Your task to perform on an android device: toggle data saver in the chrome app Image 0: 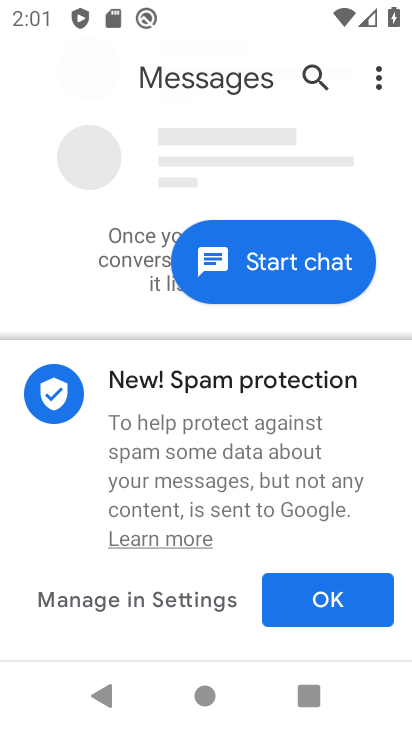
Step 0: press home button
Your task to perform on an android device: toggle data saver in the chrome app Image 1: 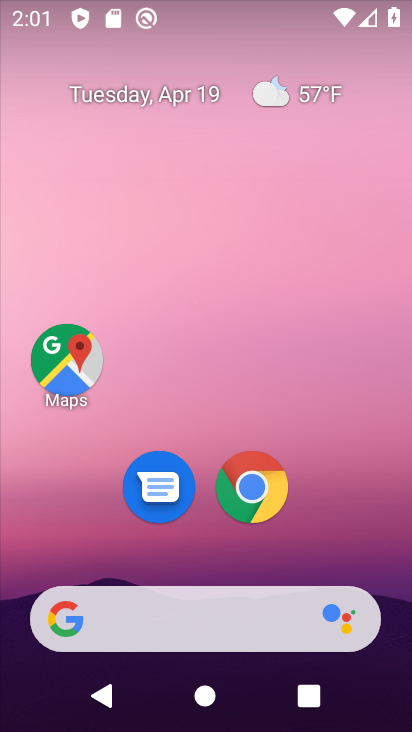
Step 1: click (252, 481)
Your task to perform on an android device: toggle data saver in the chrome app Image 2: 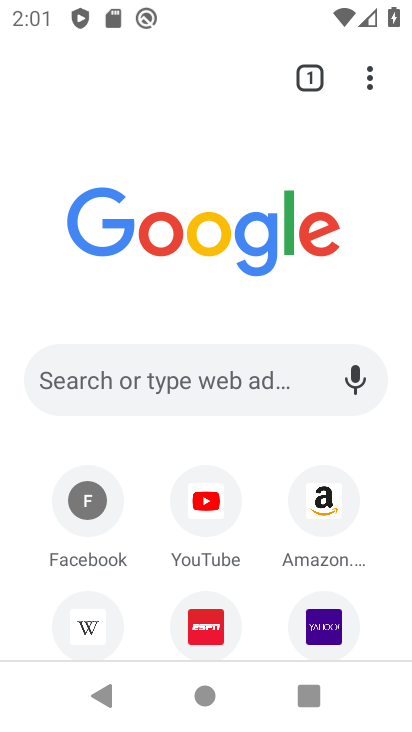
Step 2: click (376, 69)
Your task to perform on an android device: toggle data saver in the chrome app Image 3: 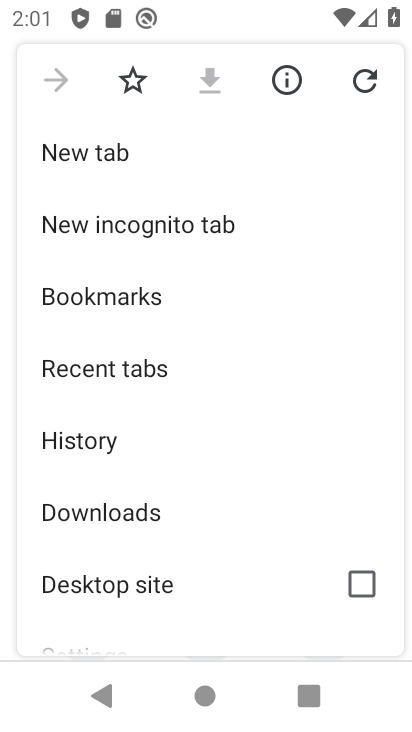
Step 3: drag from (115, 601) to (181, 29)
Your task to perform on an android device: toggle data saver in the chrome app Image 4: 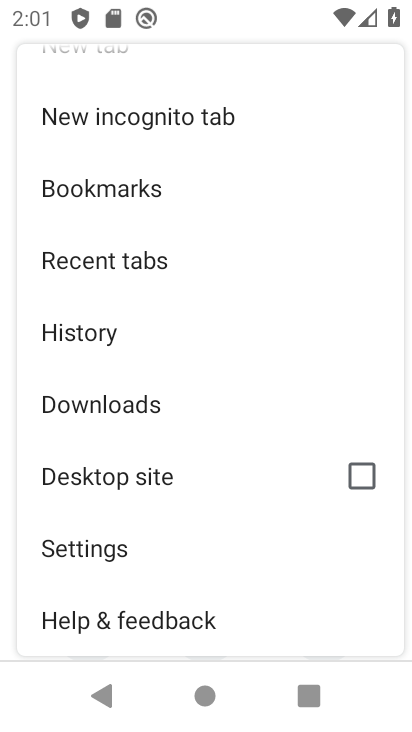
Step 4: click (95, 555)
Your task to perform on an android device: toggle data saver in the chrome app Image 5: 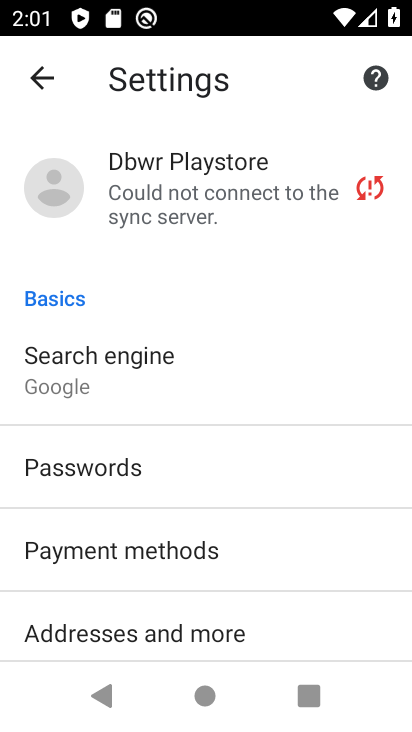
Step 5: drag from (164, 611) to (176, 148)
Your task to perform on an android device: toggle data saver in the chrome app Image 6: 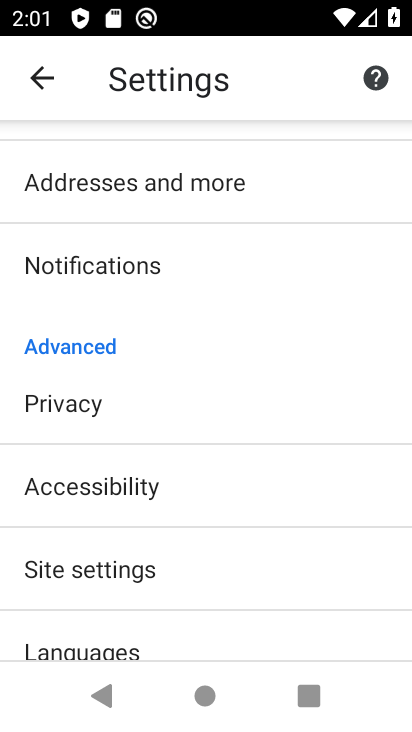
Step 6: click (141, 576)
Your task to perform on an android device: toggle data saver in the chrome app Image 7: 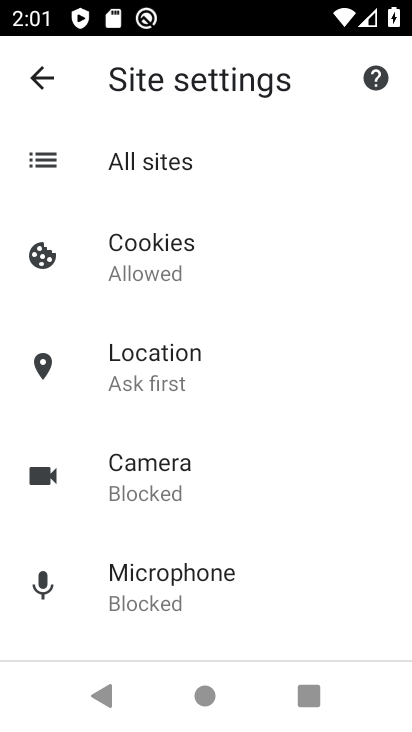
Step 7: click (53, 75)
Your task to perform on an android device: toggle data saver in the chrome app Image 8: 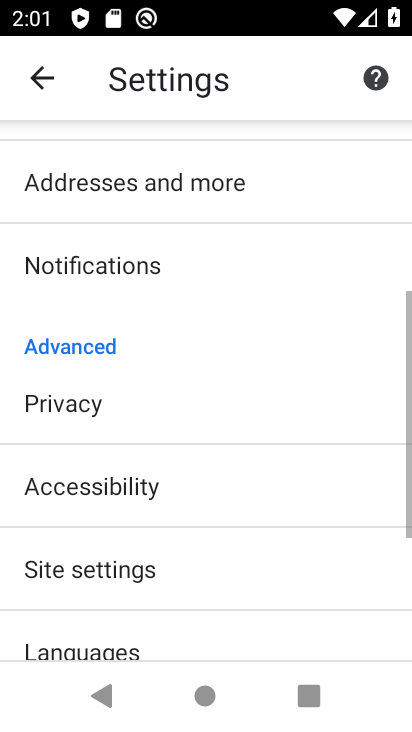
Step 8: drag from (144, 634) to (160, 115)
Your task to perform on an android device: toggle data saver in the chrome app Image 9: 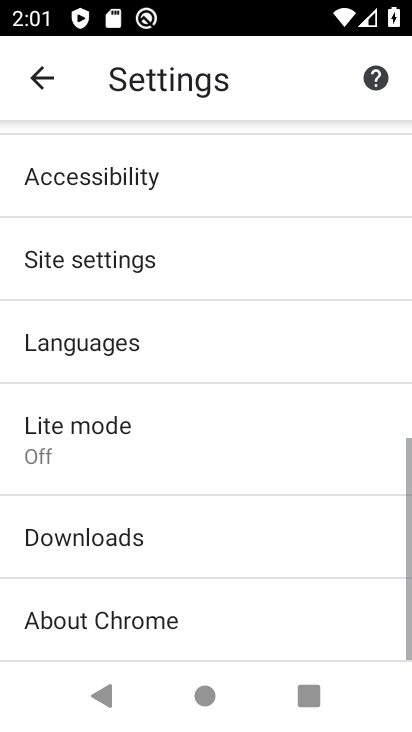
Step 9: click (103, 456)
Your task to perform on an android device: toggle data saver in the chrome app Image 10: 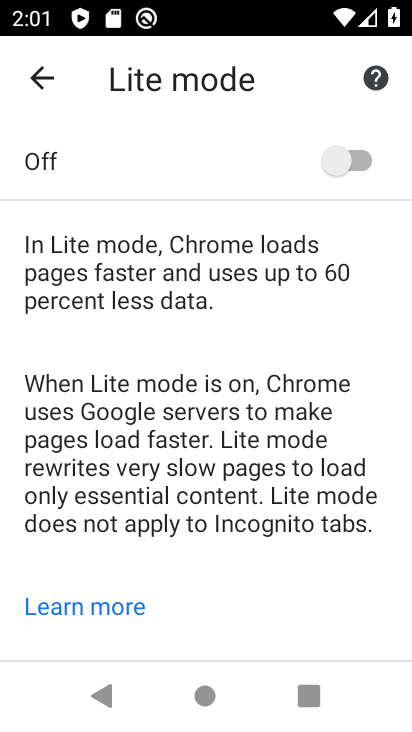
Step 10: click (363, 156)
Your task to perform on an android device: toggle data saver in the chrome app Image 11: 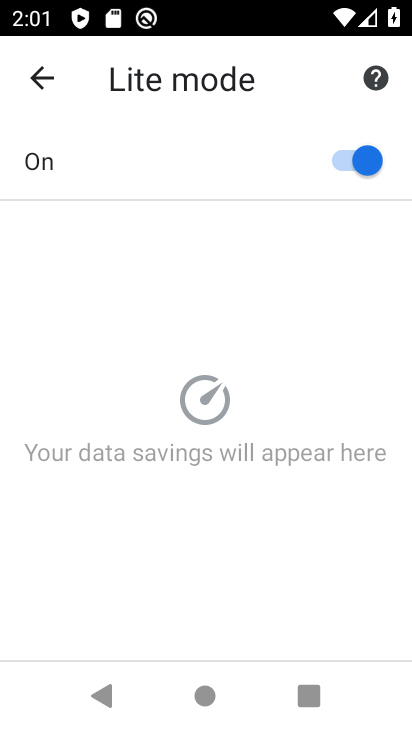
Step 11: click (363, 156)
Your task to perform on an android device: toggle data saver in the chrome app Image 12: 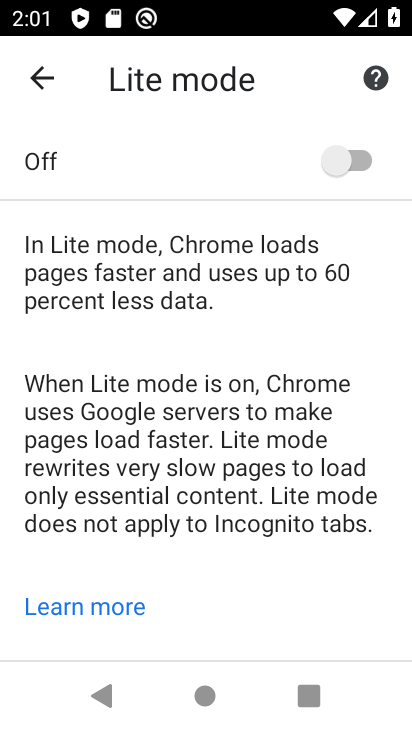
Step 12: task complete